Your task to perform on an android device: install app "Google News" Image 0: 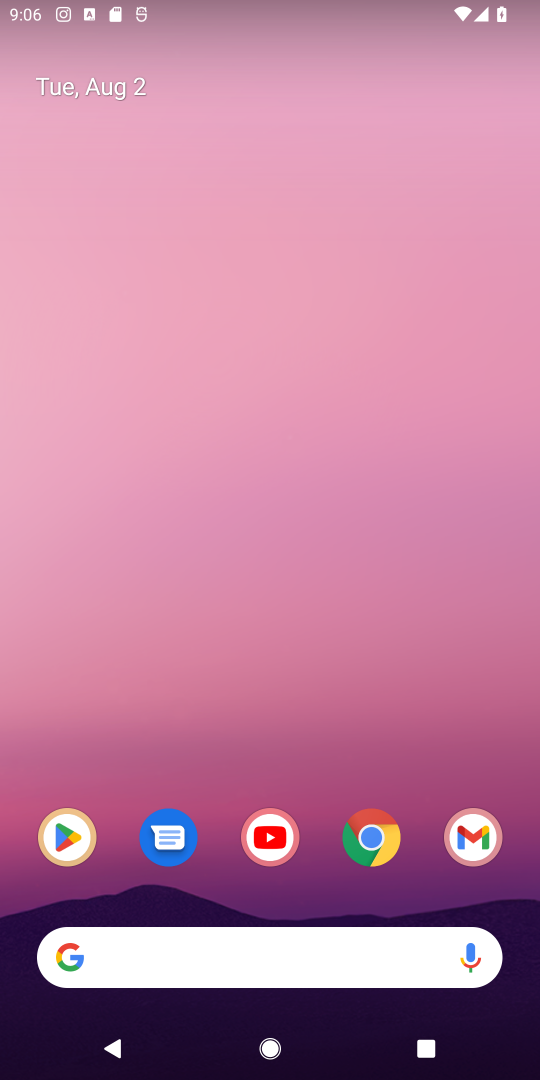
Step 0: click (60, 835)
Your task to perform on an android device: install app "Google News" Image 1: 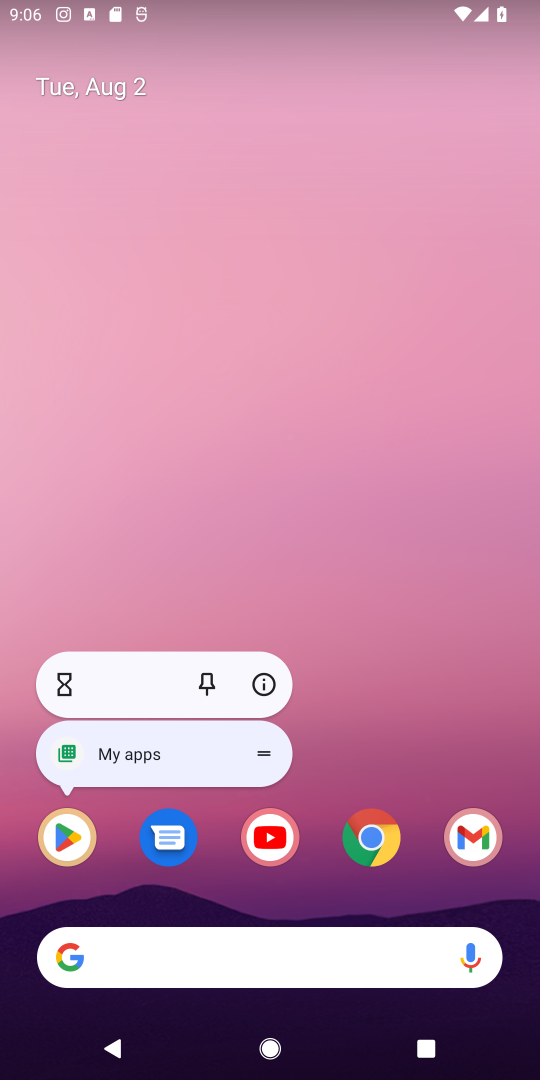
Step 1: click (64, 845)
Your task to perform on an android device: install app "Google News" Image 2: 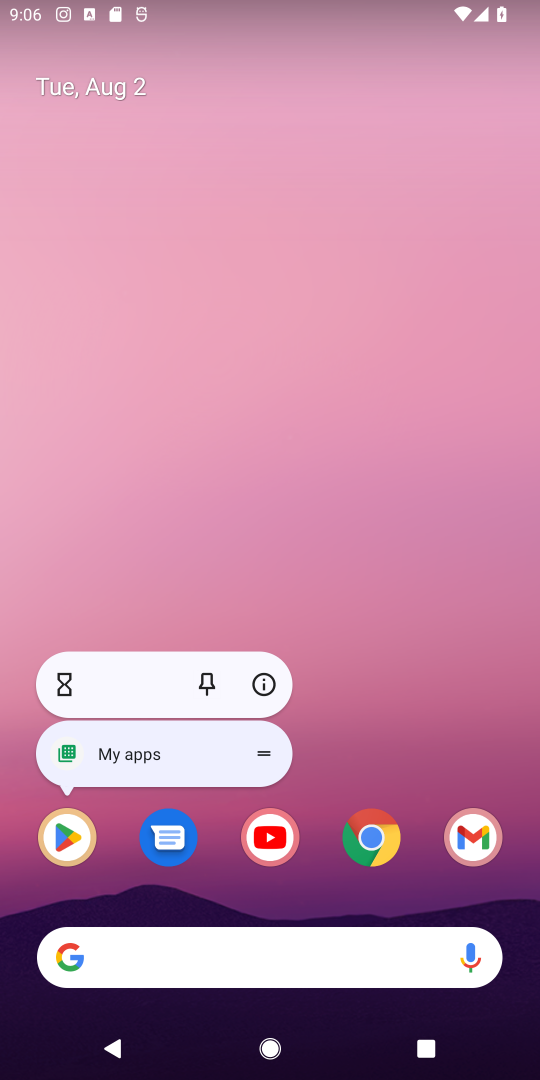
Step 2: click (64, 845)
Your task to perform on an android device: install app "Google News" Image 3: 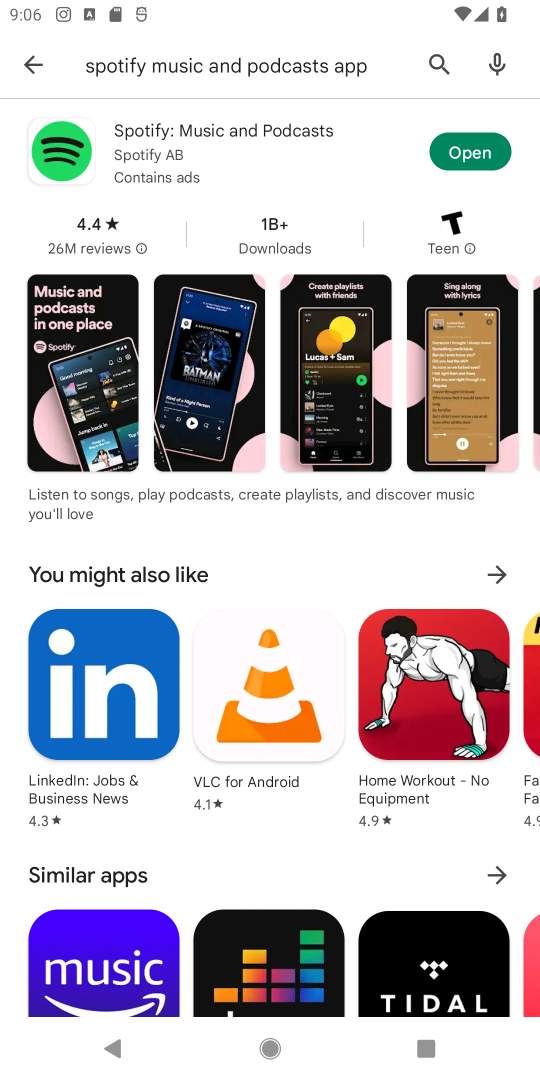
Step 3: click (441, 55)
Your task to perform on an android device: install app "Google News" Image 4: 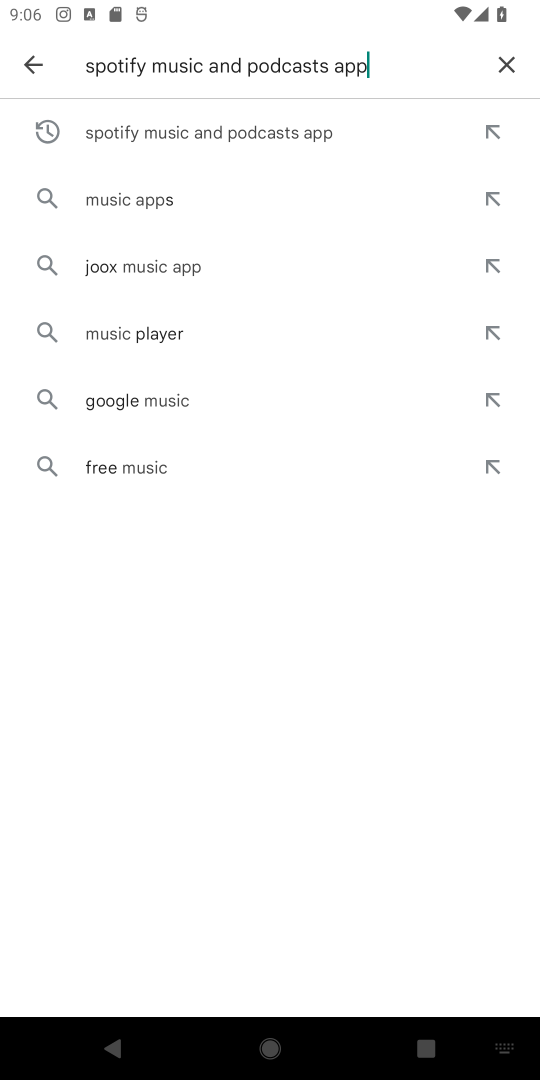
Step 4: click (516, 68)
Your task to perform on an android device: install app "Google News" Image 5: 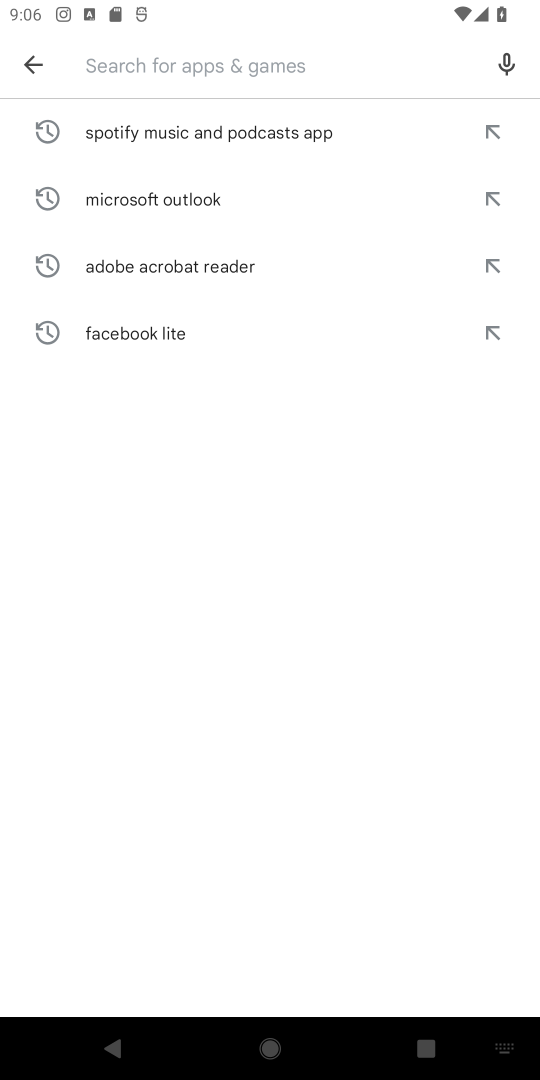
Step 5: type "Google News"
Your task to perform on an android device: install app "Google News" Image 6: 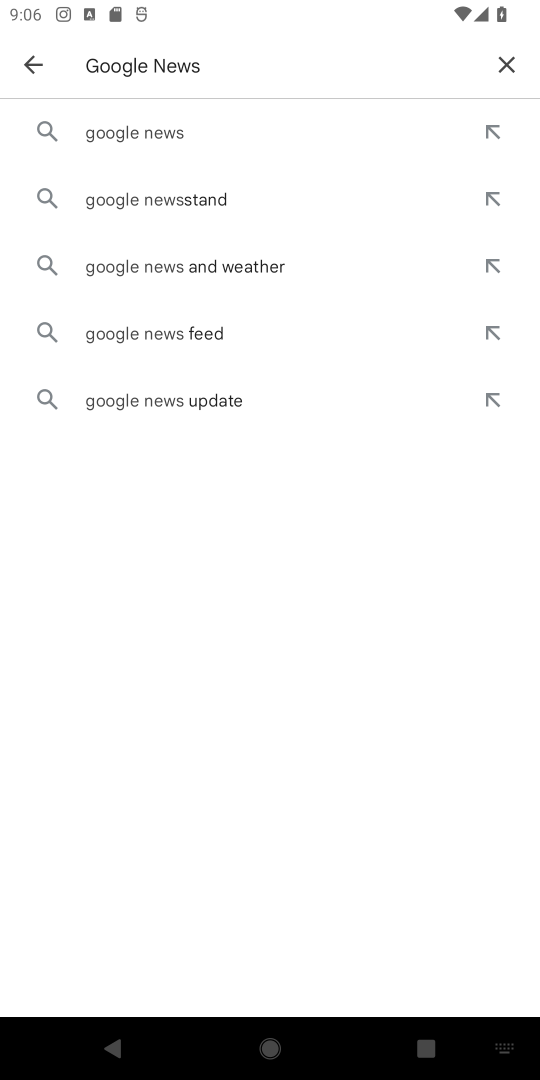
Step 6: click (125, 136)
Your task to perform on an android device: install app "Google News" Image 7: 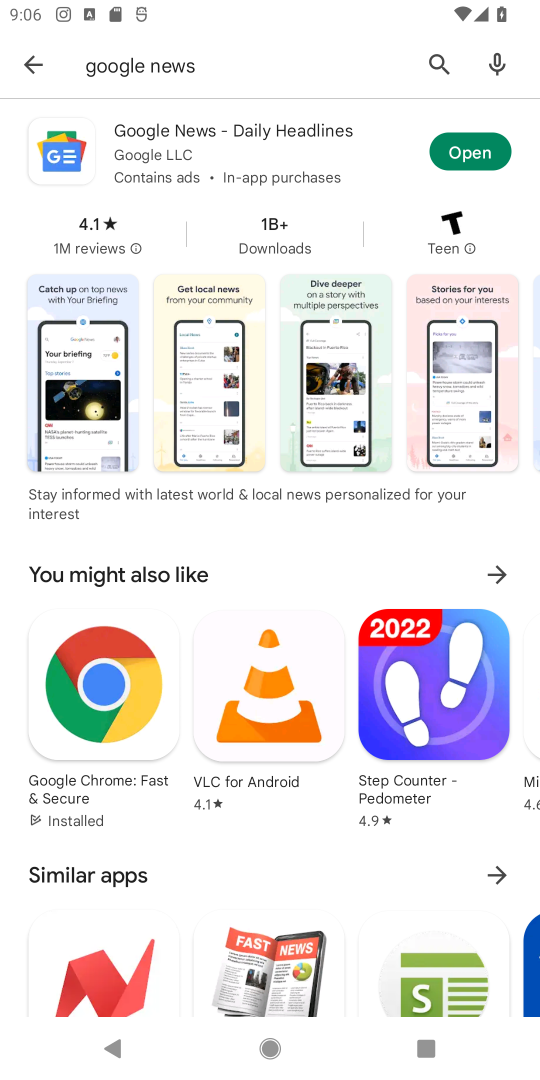
Step 7: task complete